Your task to perform on an android device: turn off notifications in google photos Image 0: 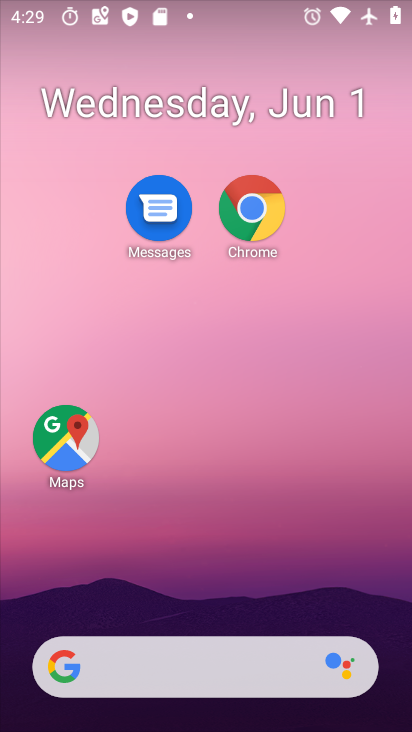
Step 0: drag from (225, 609) to (220, 166)
Your task to perform on an android device: turn off notifications in google photos Image 1: 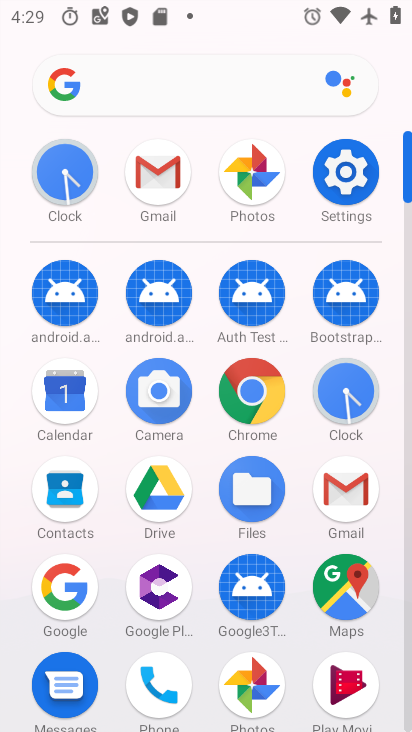
Step 1: click (244, 194)
Your task to perform on an android device: turn off notifications in google photos Image 2: 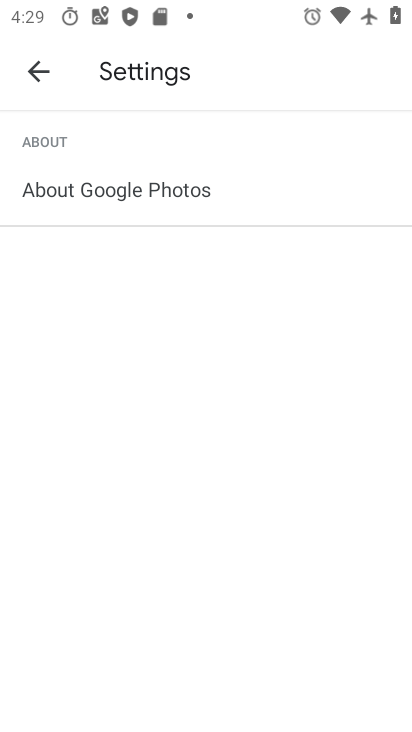
Step 2: click (33, 75)
Your task to perform on an android device: turn off notifications in google photos Image 3: 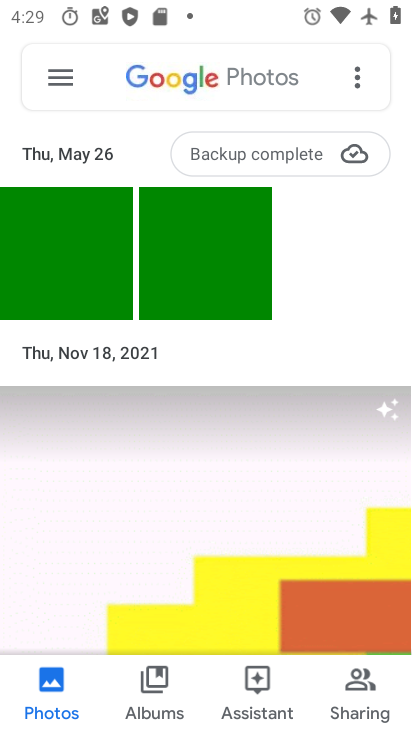
Step 3: click (33, 75)
Your task to perform on an android device: turn off notifications in google photos Image 4: 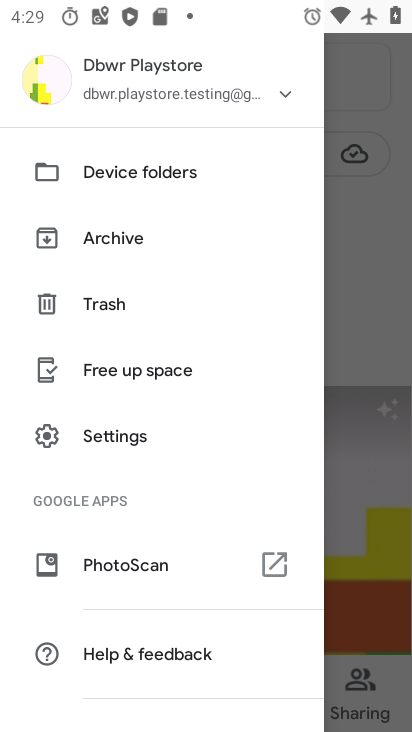
Step 4: click (113, 430)
Your task to perform on an android device: turn off notifications in google photos Image 5: 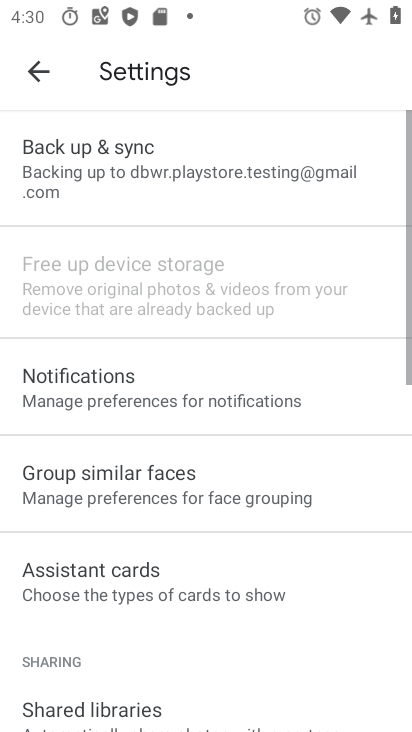
Step 5: drag from (200, 617) to (236, 179)
Your task to perform on an android device: turn off notifications in google photos Image 6: 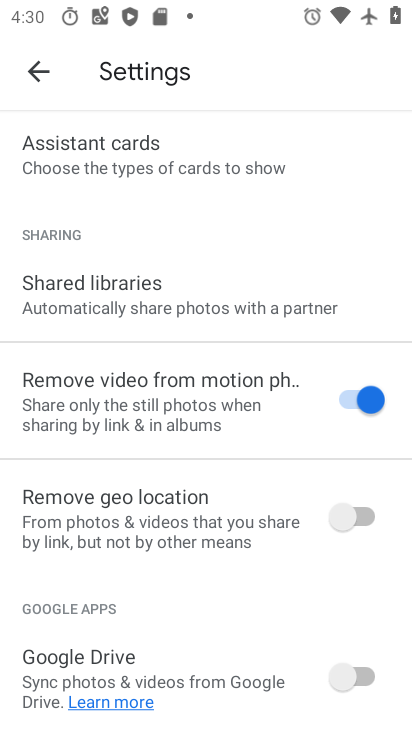
Step 6: drag from (199, 649) to (205, 217)
Your task to perform on an android device: turn off notifications in google photos Image 7: 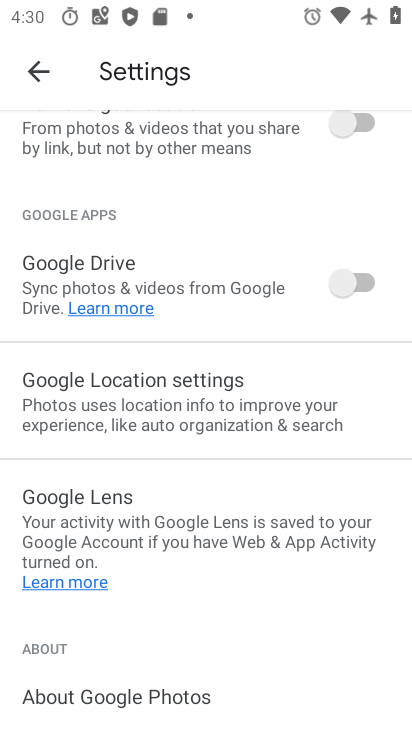
Step 7: drag from (160, 242) to (160, 616)
Your task to perform on an android device: turn off notifications in google photos Image 8: 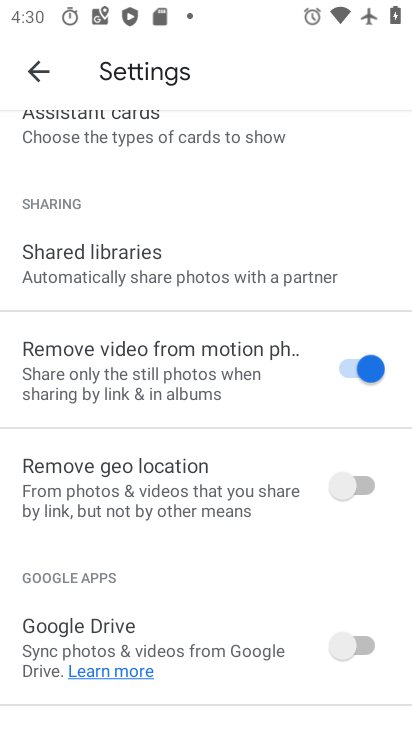
Step 8: drag from (162, 241) to (184, 609)
Your task to perform on an android device: turn off notifications in google photos Image 9: 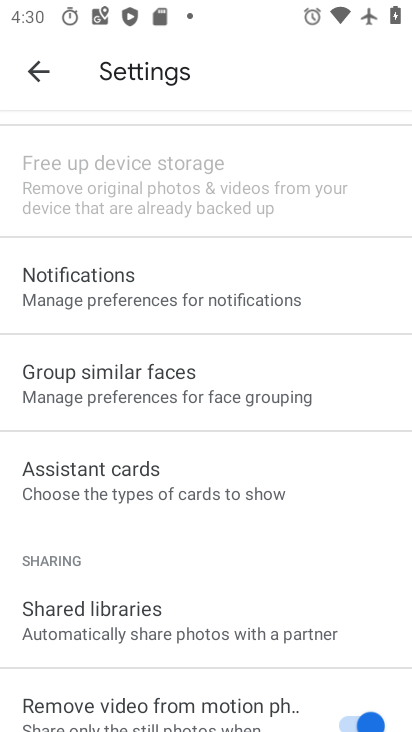
Step 9: click (150, 302)
Your task to perform on an android device: turn off notifications in google photos Image 10: 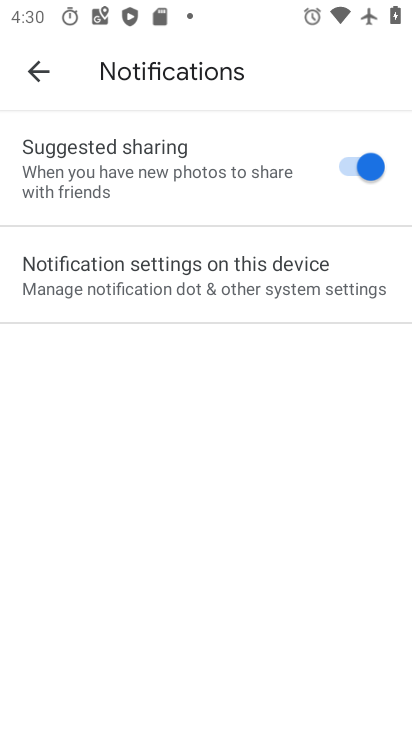
Step 10: click (203, 276)
Your task to perform on an android device: turn off notifications in google photos Image 11: 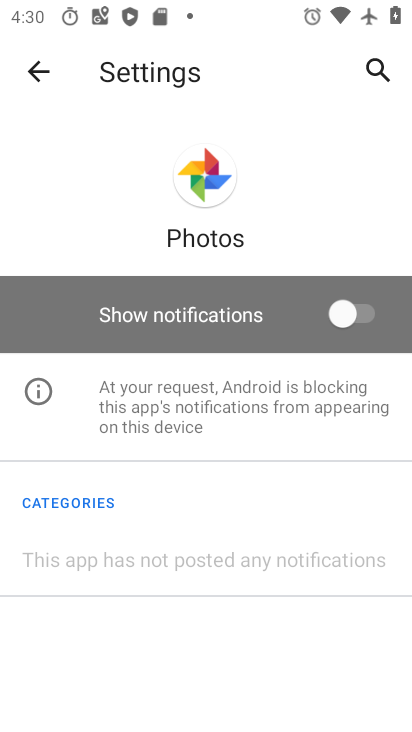
Step 11: task complete